Your task to perform on an android device: Search for sushi restaurants on Maps Image 0: 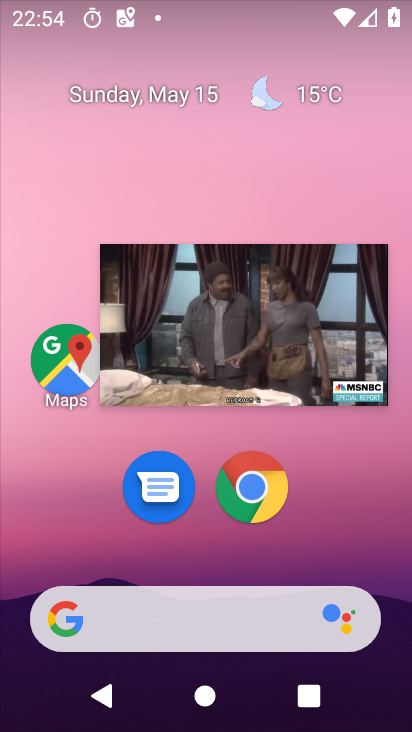
Step 0: click (59, 355)
Your task to perform on an android device: Search for sushi restaurants on Maps Image 1: 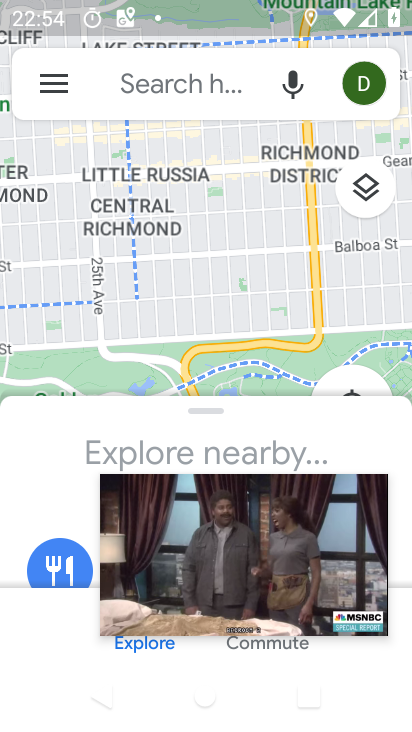
Step 1: click (183, 92)
Your task to perform on an android device: Search for sushi restaurants on Maps Image 2: 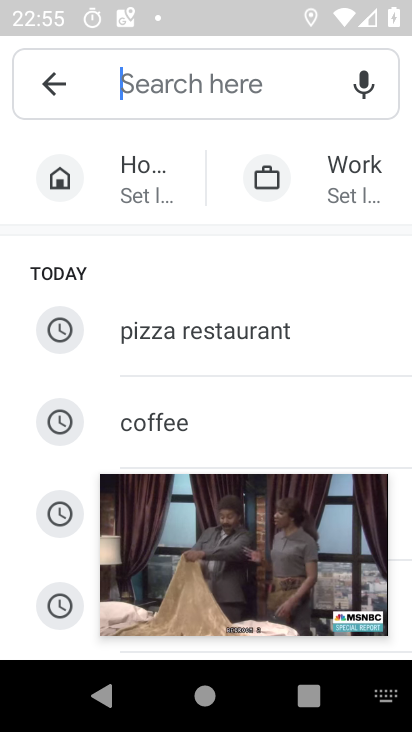
Step 2: click (164, 83)
Your task to perform on an android device: Search for sushi restaurants on Maps Image 3: 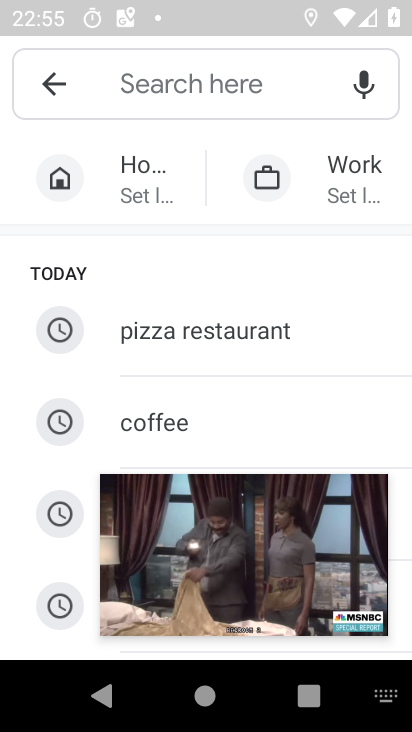
Step 3: type "sushi restaurants"
Your task to perform on an android device: Search for sushi restaurants on Maps Image 4: 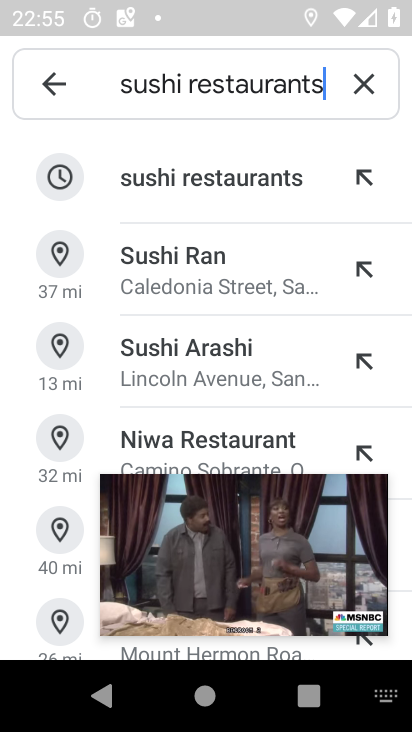
Step 4: click (238, 180)
Your task to perform on an android device: Search for sushi restaurants on Maps Image 5: 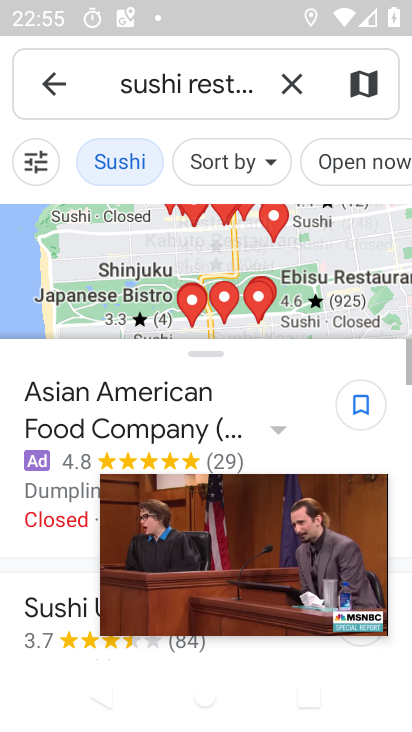
Step 5: task complete